Your task to perform on an android device: Go to wifi settings Image 0: 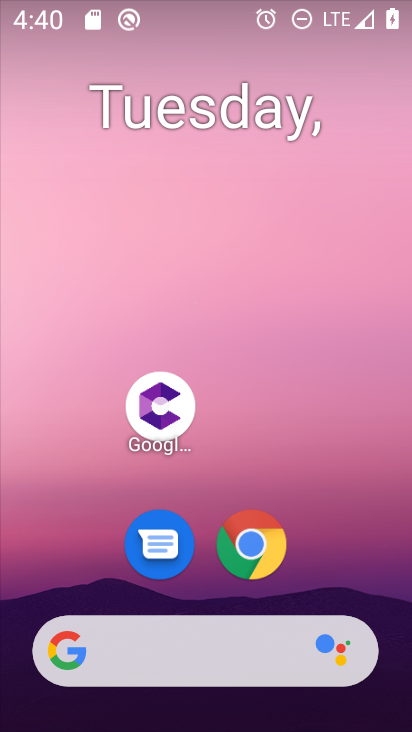
Step 0: drag from (372, 574) to (384, 200)
Your task to perform on an android device: Go to wifi settings Image 1: 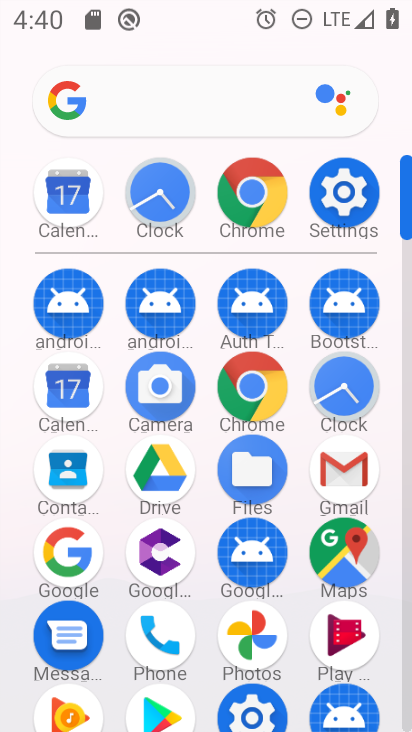
Step 1: click (350, 209)
Your task to perform on an android device: Go to wifi settings Image 2: 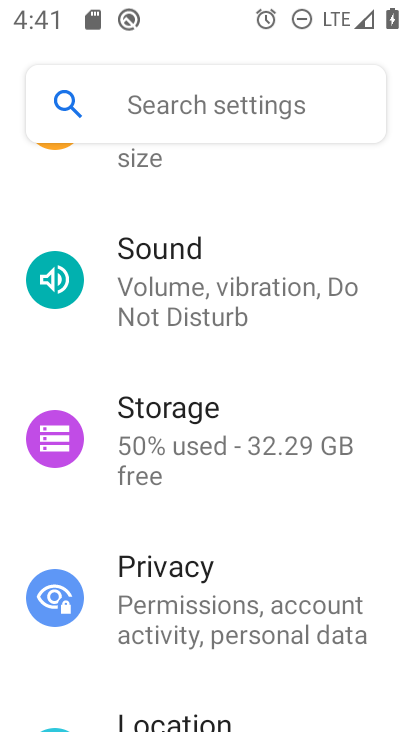
Step 2: drag from (355, 243) to (344, 385)
Your task to perform on an android device: Go to wifi settings Image 3: 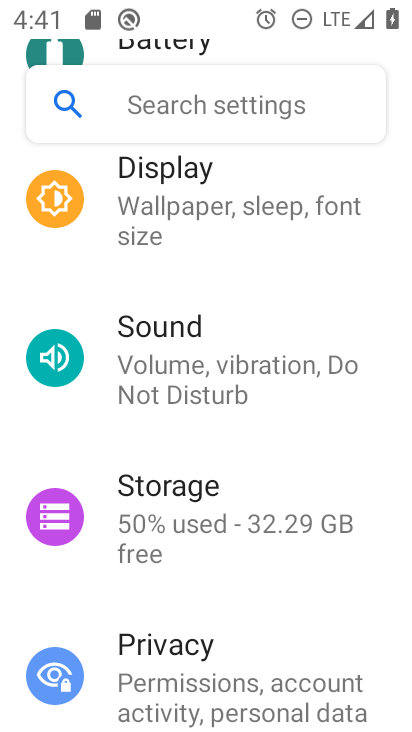
Step 3: drag from (389, 238) to (390, 366)
Your task to perform on an android device: Go to wifi settings Image 4: 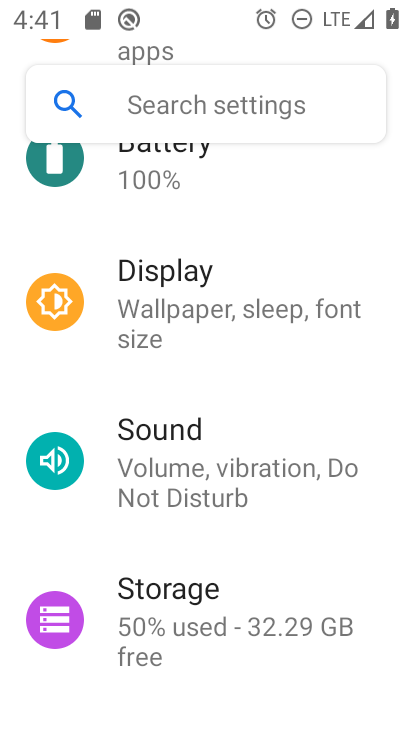
Step 4: drag from (377, 232) to (373, 389)
Your task to perform on an android device: Go to wifi settings Image 5: 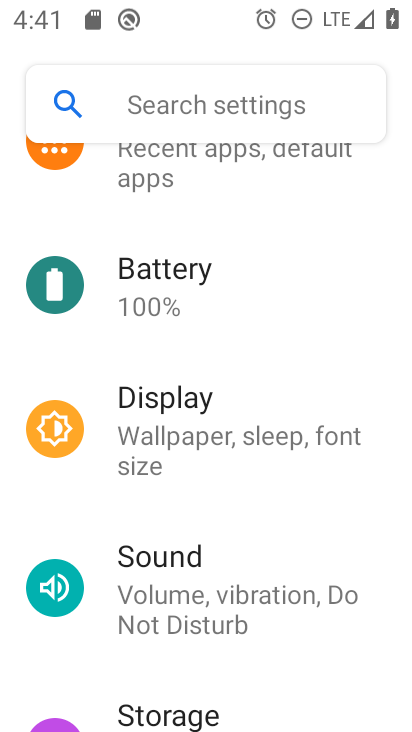
Step 5: drag from (343, 209) to (340, 338)
Your task to perform on an android device: Go to wifi settings Image 6: 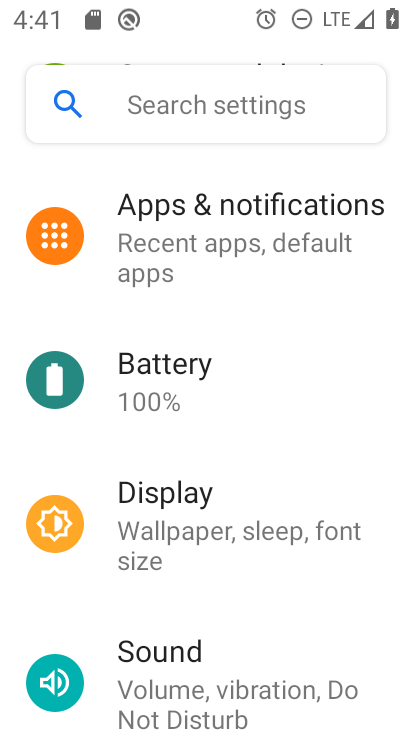
Step 6: drag from (335, 321) to (329, 408)
Your task to perform on an android device: Go to wifi settings Image 7: 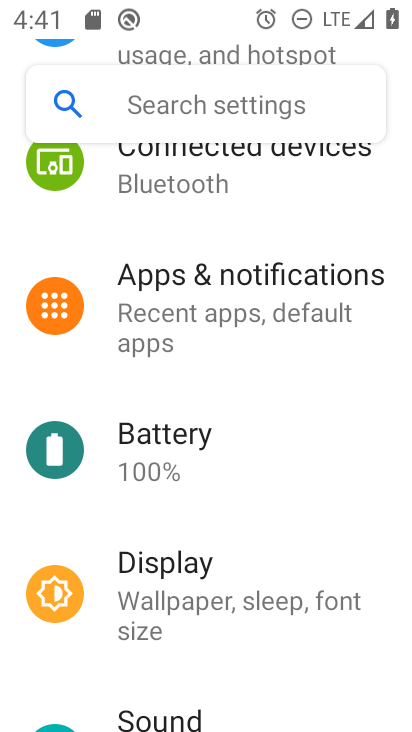
Step 7: drag from (347, 225) to (340, 345)
Your task to perform on an android device: Go to wifi settings Image 8: 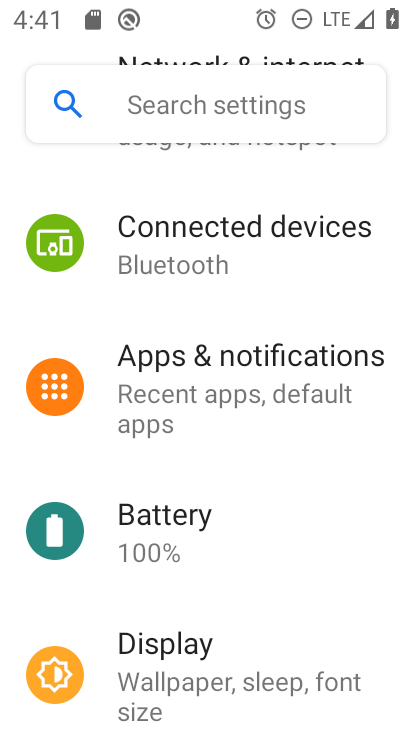
Step 8: drag from (357, 201) to (360, 360)
Your task to perform on an android device: Go to wifi settings Image 9: 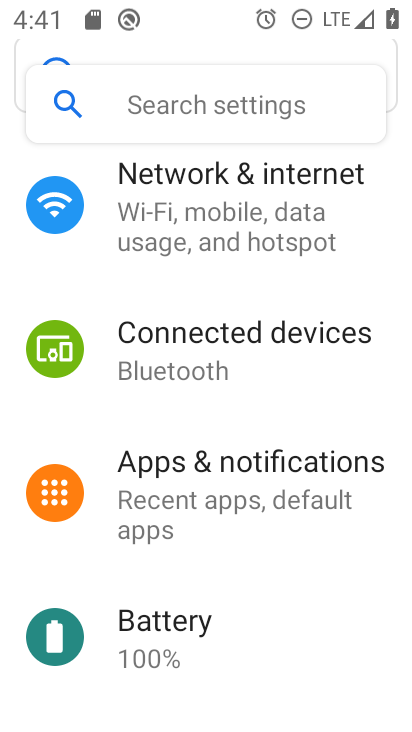
Step 9: drag from (362, 231) to (351, 306)
Your task to perform on an android device: Go to wifi settings Image 10: 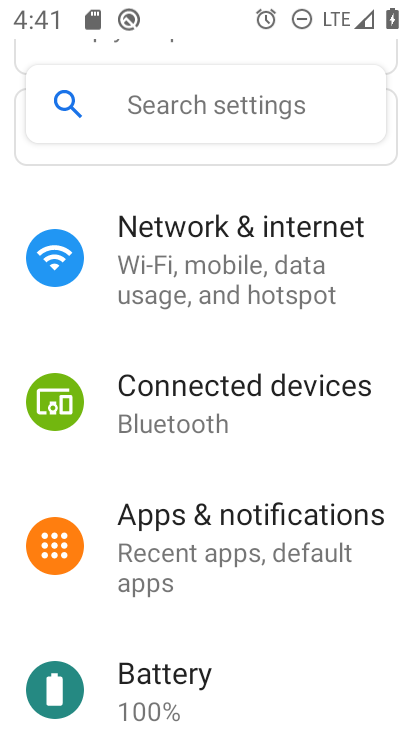
Step 10: click (262, 297)
Your task to perform on an android device: Go to wifi settings Image 11: 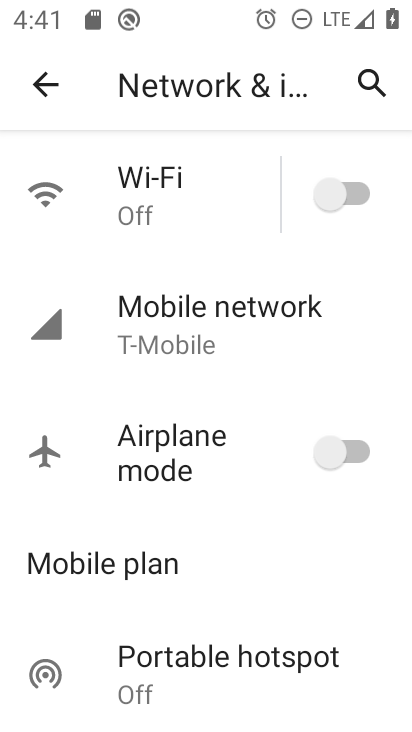
Step 11: click (197, 197)
Your task to perform on an android device: Go to wifi settings Image 12: 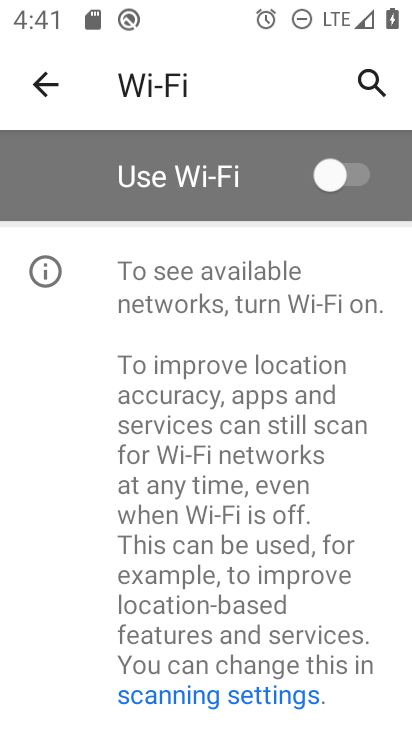
Step 12: task complete